Your task to perform on an android device: change notifications settings Image 0: 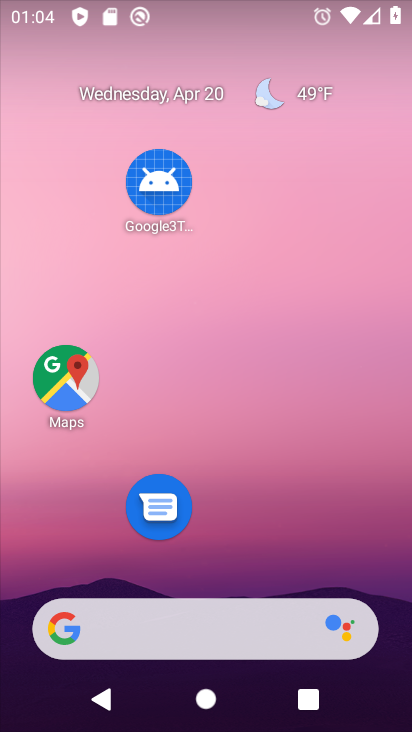
Step 0: drag from (266, 565) to (281, 7)
Your task to perform on an android device: change notifications settings Image 1: 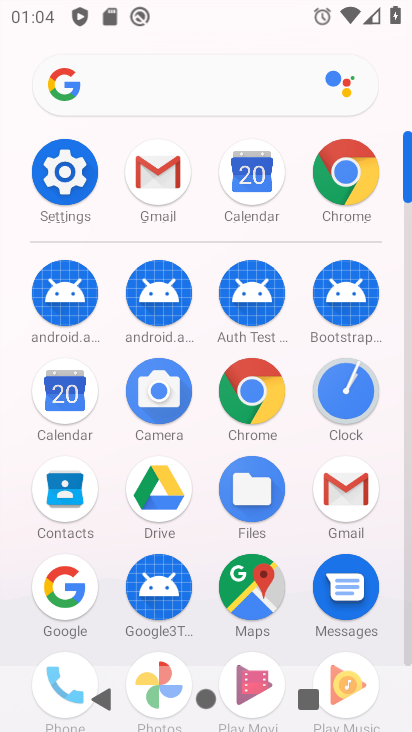
Step 1: click (72, 176)
Your task to perform on an android device: change notifications settings Image 2: 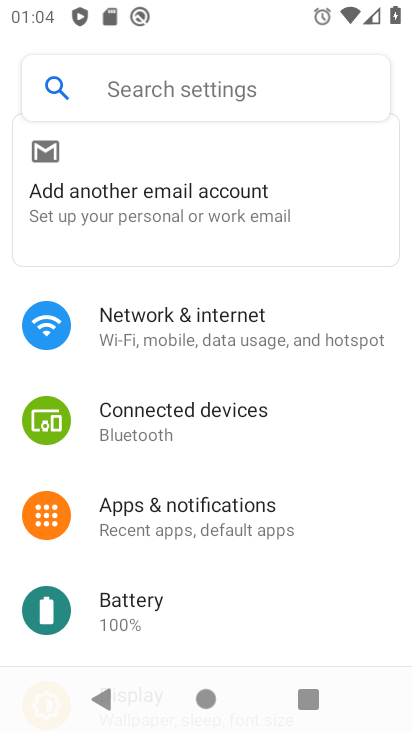
Step 2: click (185, 514)
Your task to perform on an android device: change notifications settings Image 3: 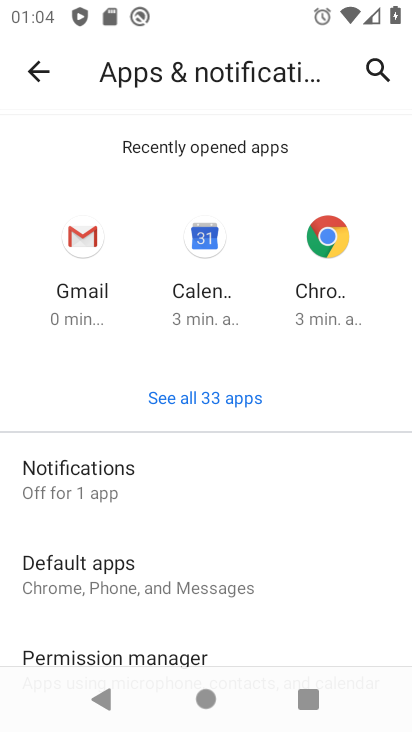
Step 3: click (78, 472)
Your task to perform on an android device: change notifications settings Image 4: 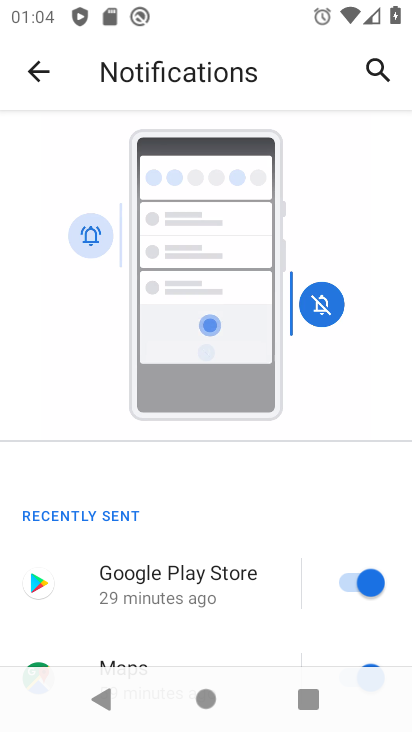
Step 4: task complete